Your task to perform on an android device: turn off airplane mode Image 0: 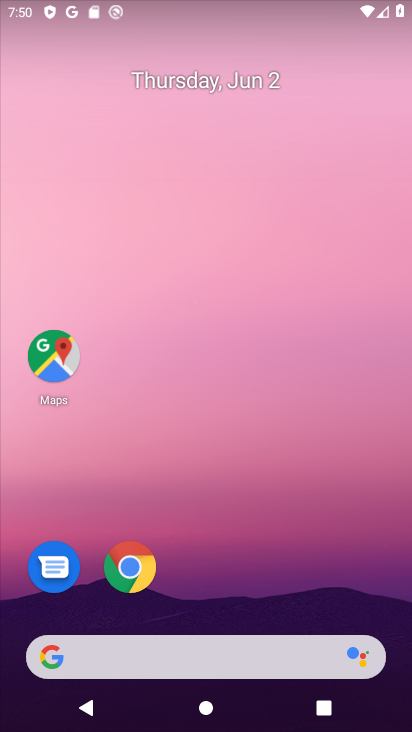
Step 0: drag from (267, 618) to (238, 319)
Your task to perform on an android device: turn off airplane mode Image 1: 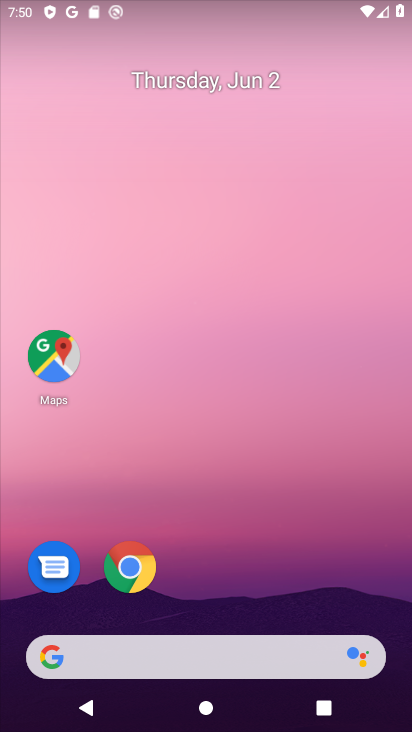
Step 1: drag from (325, 551) to (245, 236)
Your task to perform on an android device: turn off airplane mode Image 2: 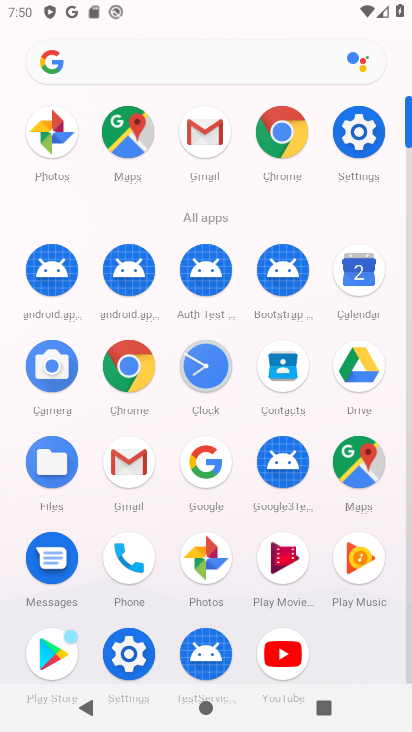
Step 2: click (366, 134)
Your task to perform on an android device: turn off airplane mode Image 3: 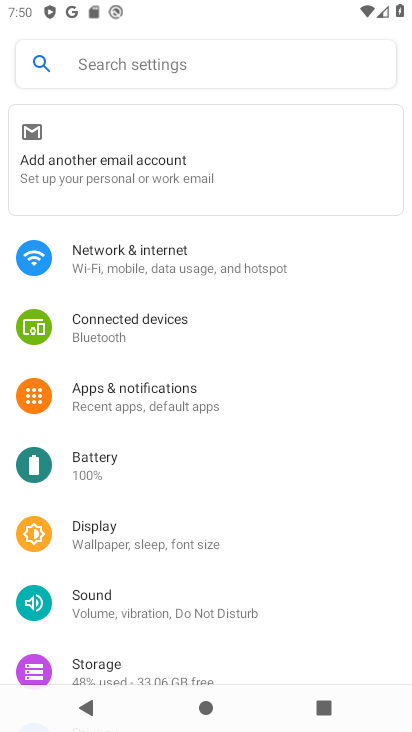
Step 3: click (122, 260)
Your task to perform on an android device: turn off airplane mode Image 4: 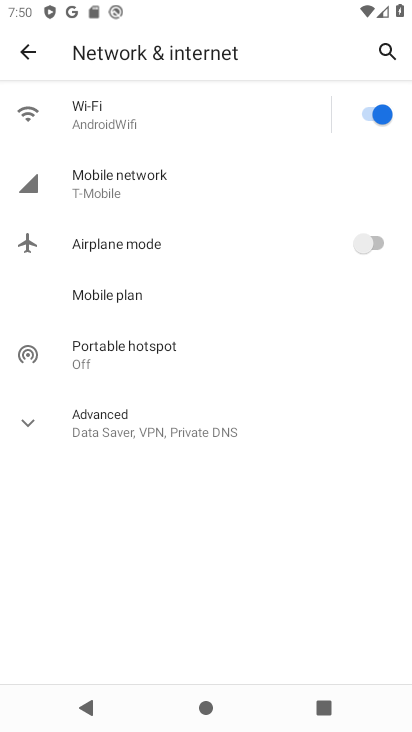
Step 4: click (207, 258)
Your task to perform on an android device: turn off airplane mode Image 5: 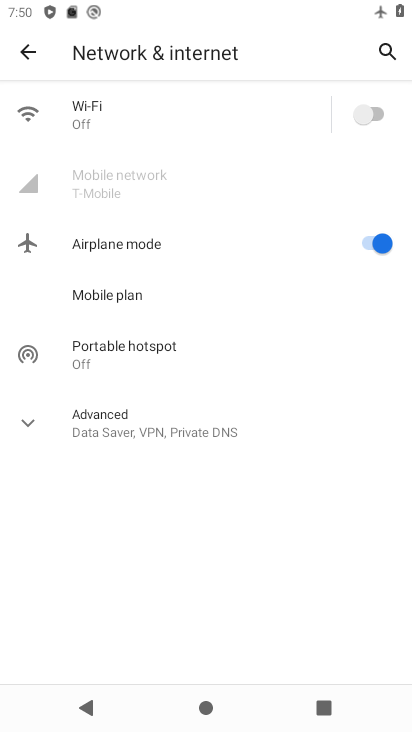
Step 5: click (351, 249)
Your task to perform on an android device: turn off airplane mode Image 6: 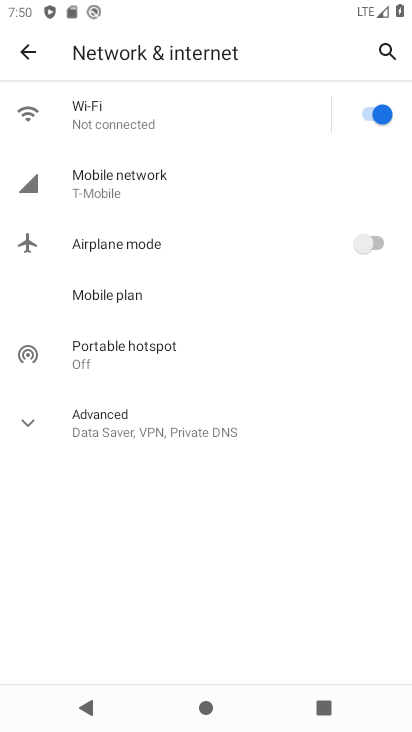
Step 6: task complete